Your task to perform on an android device: turn on translation in the chrome app Image 0: 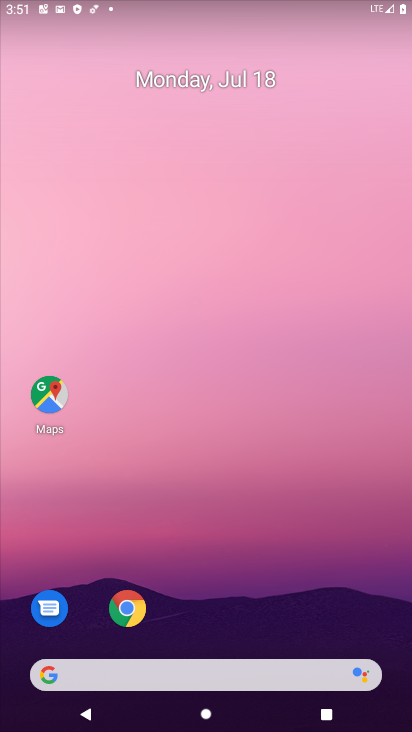
Step 0: drag from (190, 712) to (256, 159)
Your task to perform on an android device: turn on translation in the chrome app Image 1: 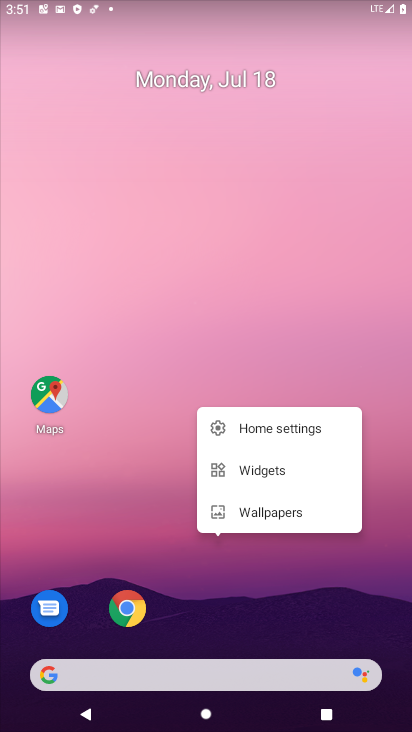
Step 1: click (256, 302)
Your task to perform on an android device: turn on translation in the chrome app Image 2: 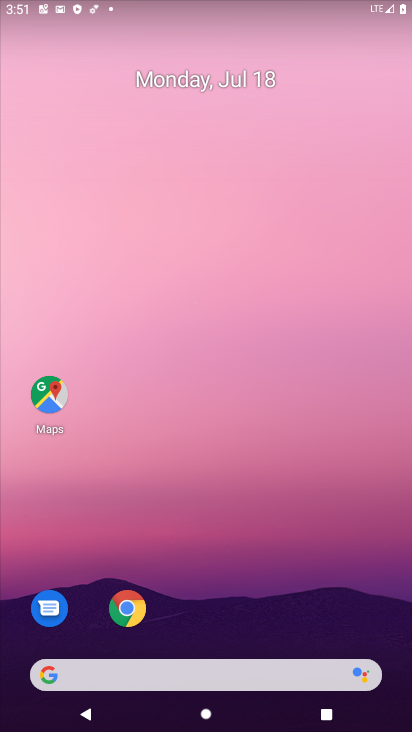
Step 2: drag from (162, 631) to (179, 196)
Your task to perform on an android device: turn on translation in the chrome app Image 3: 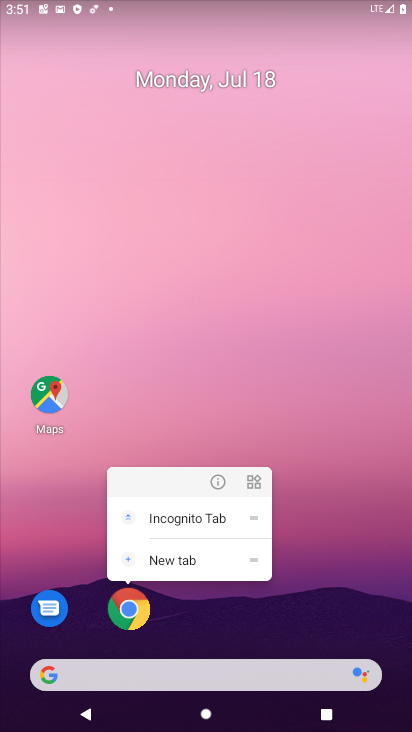
Step 3: click (318, 255)
Your task to perform on an android device: turn on translation in the chrome app Image 4: 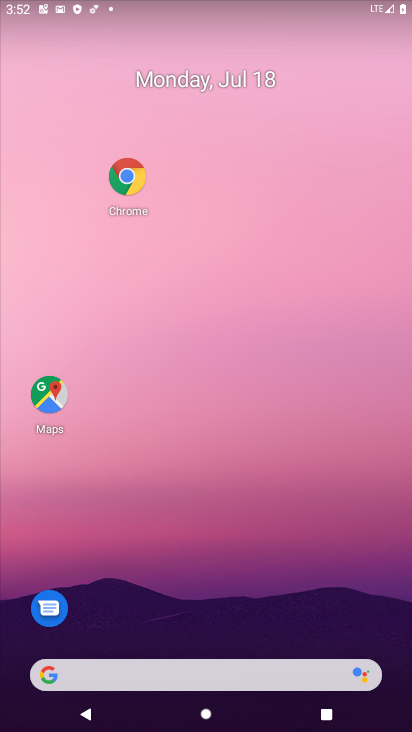
Step 4: drag from (227, 662) to (235, 157)
Your task to perform on an android device: turn on translation in the chrome app Image 5: 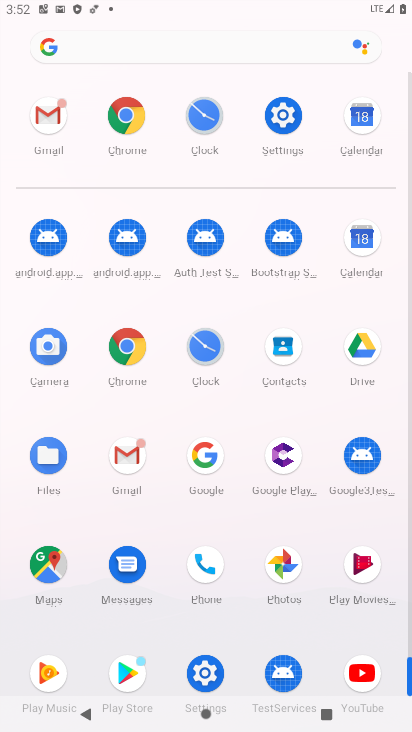
Step 5: click (128, 366)
Your task to perform on an android device: turn on translation in the chrome app Image 6: 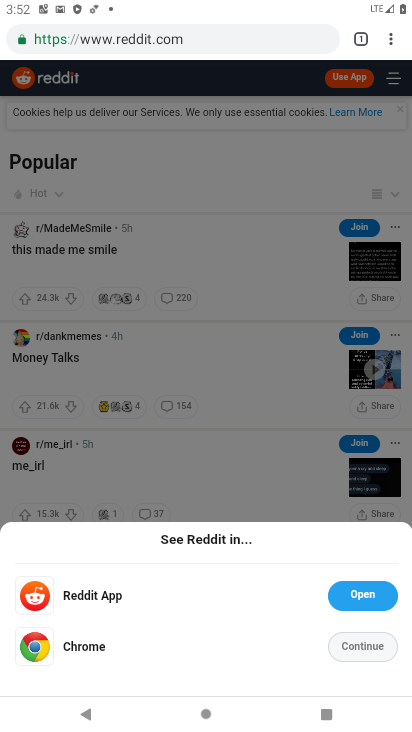
Step 6: click (391, 43)
Your task to perform on an android device: turn on translation in the chrome app Image 7: 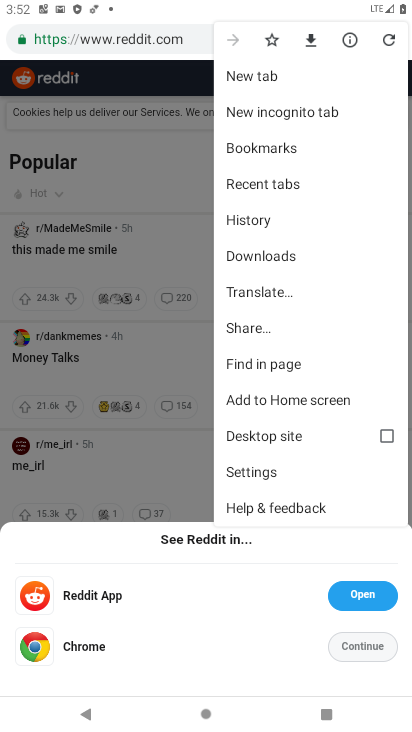
Step 7: click (287, 296)
Your task to perform on an android device: turn on translation in the chrome app Image 8: 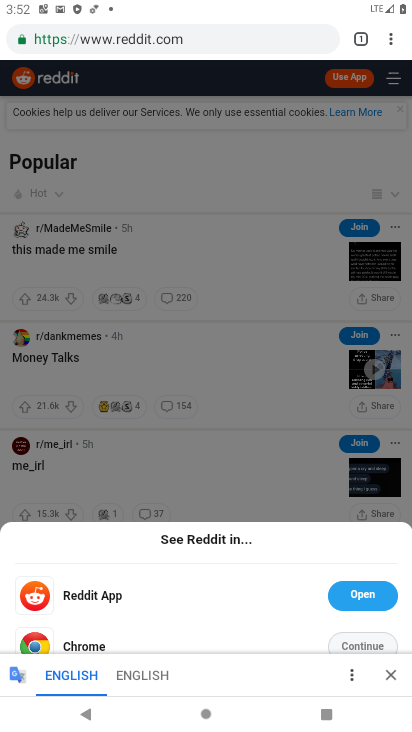
Step 8: click (354, 677)
Your task to perform on an android device: turn on translation in the chrome app Image 9: 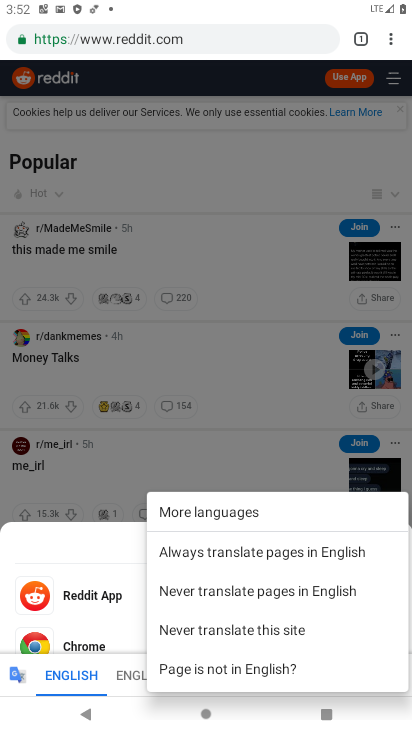
Step 9: click (260, 556)
Your task to perform on an android device: turn on translation in the chrome app Image 10: 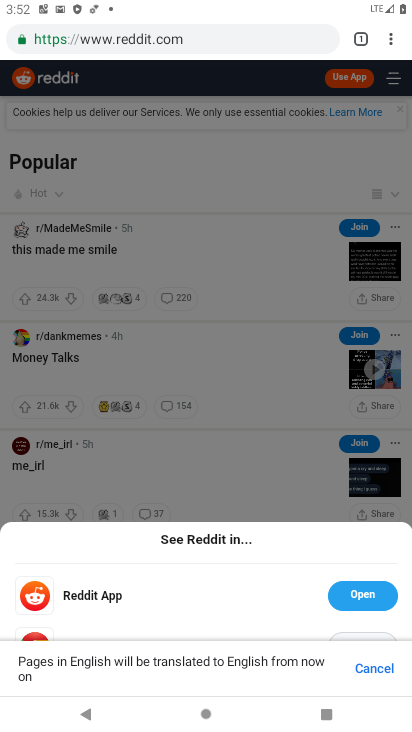
Step 10: task complete